Your task to perform on an android device: View the shopping cart on costco. Search for acer nitro on costco, select the first entry, add it to the cart, then select checkout. Image 0: 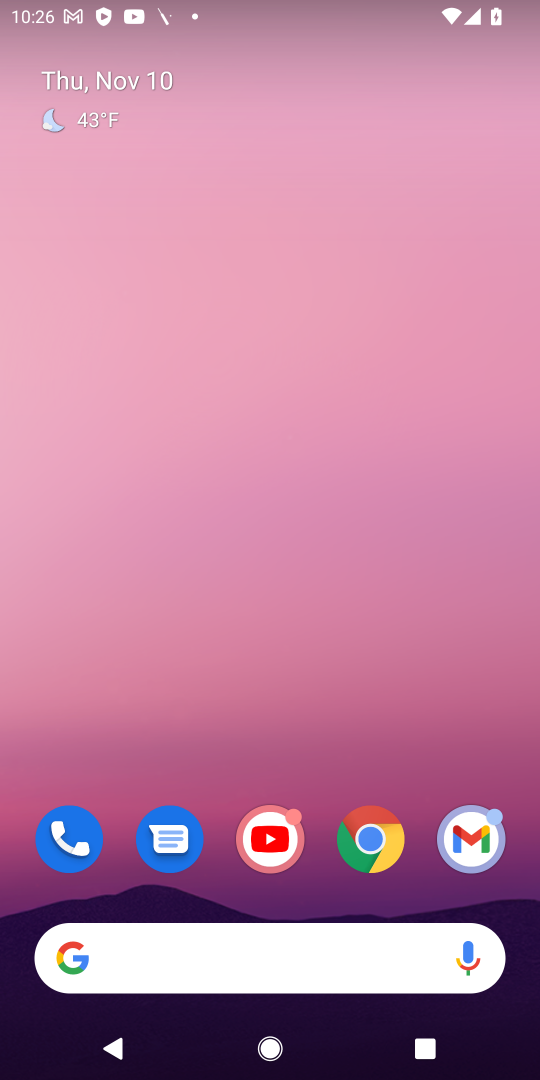
Step 0: click (374, 837)
Your task to perform on an android device: View the shopping cart on costco. Search for acer nitro on costco, select the first entry, add it to the cart, then select checkout. Image 1: 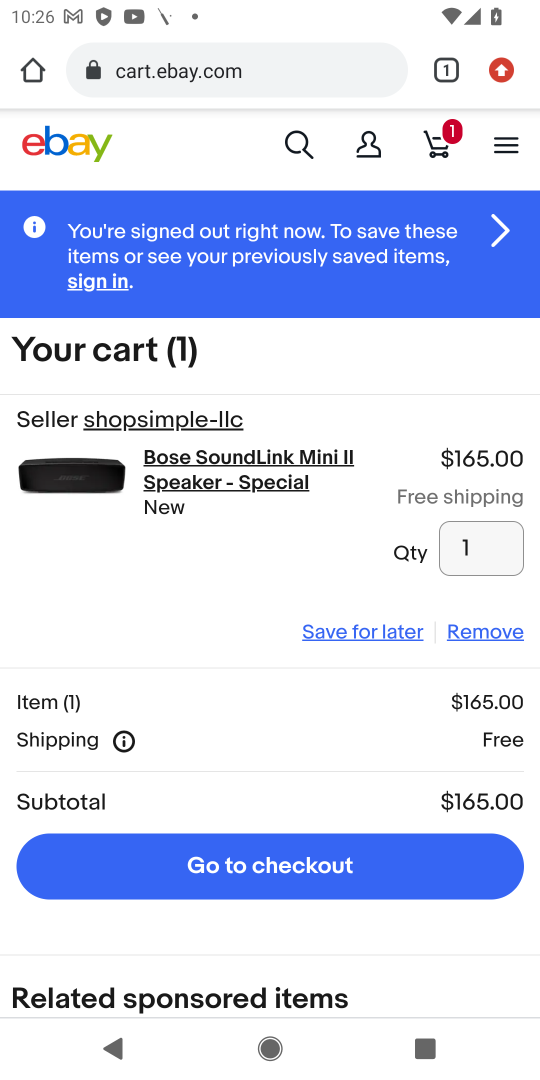
Step 1: click (293, 75)
Your task to perform on an android device: View the shopping cart on costco. Search for acer nitro on costco, select the first entry, add it to the cart, then select checkout. Image 2: 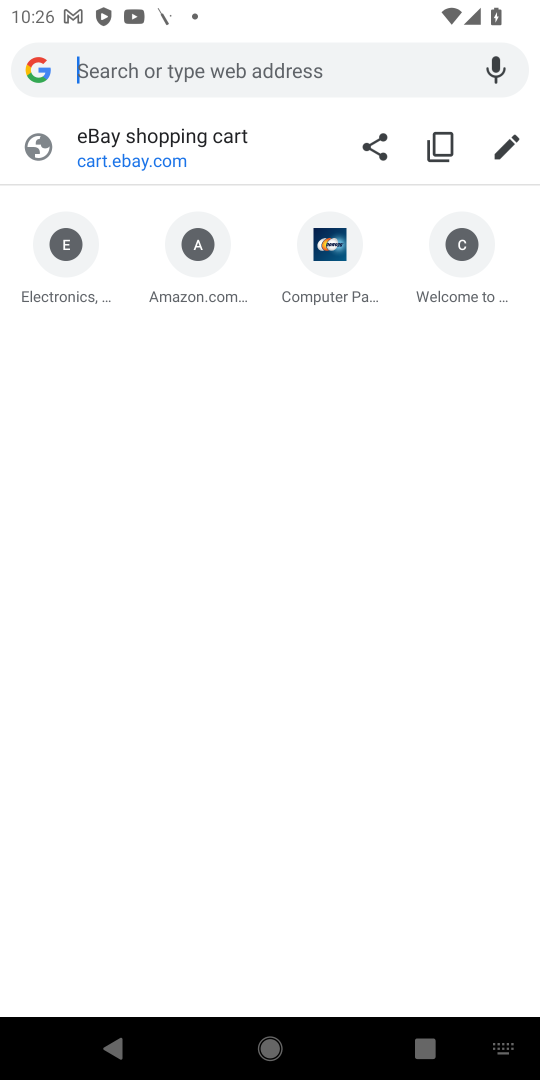
Step 2: type "costco"
Your task to perform on an android device: View the shopping cart on costco. Search for acer nitro on costco, select the first entry, add it to the cart, then select checkout. Image 3: 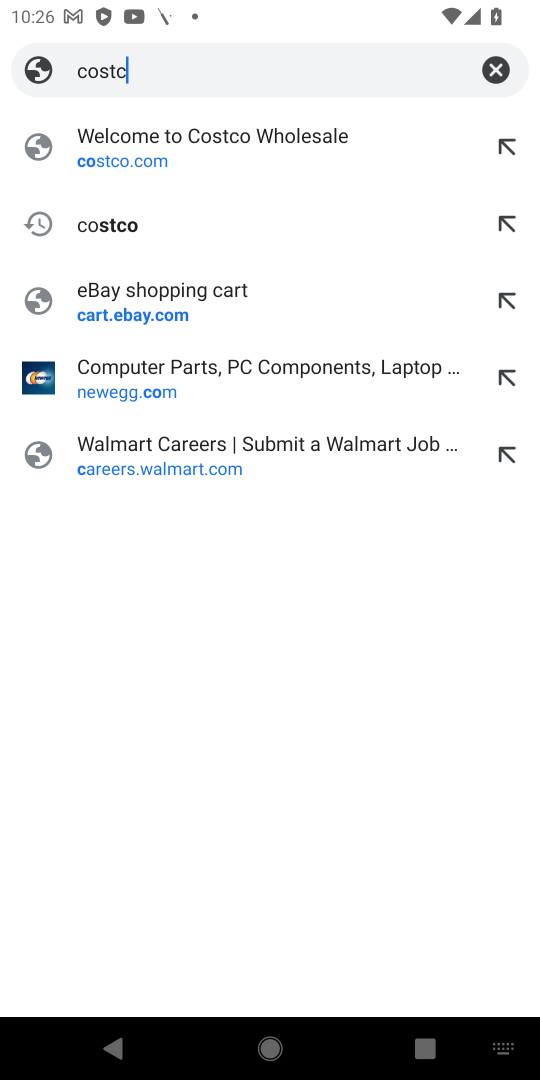
Step 3: press enter
Your task to perform on an android device: View the shopping cart on costco. Search for acer nitro on costco, select the first entry, add it to the cart, then select checkout. Image 4: 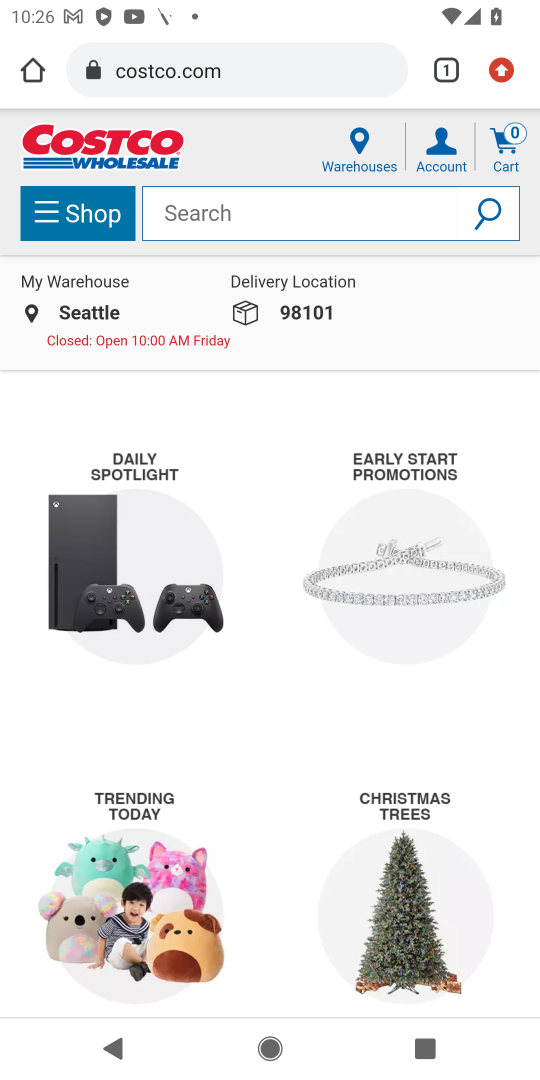
Step 4: click (333, 215)
Your task to perform on an android device: View the shopping cart on costco. Search for acer nitro on costco, select the first entry, add it to the cart, then select checkout. Image 5: 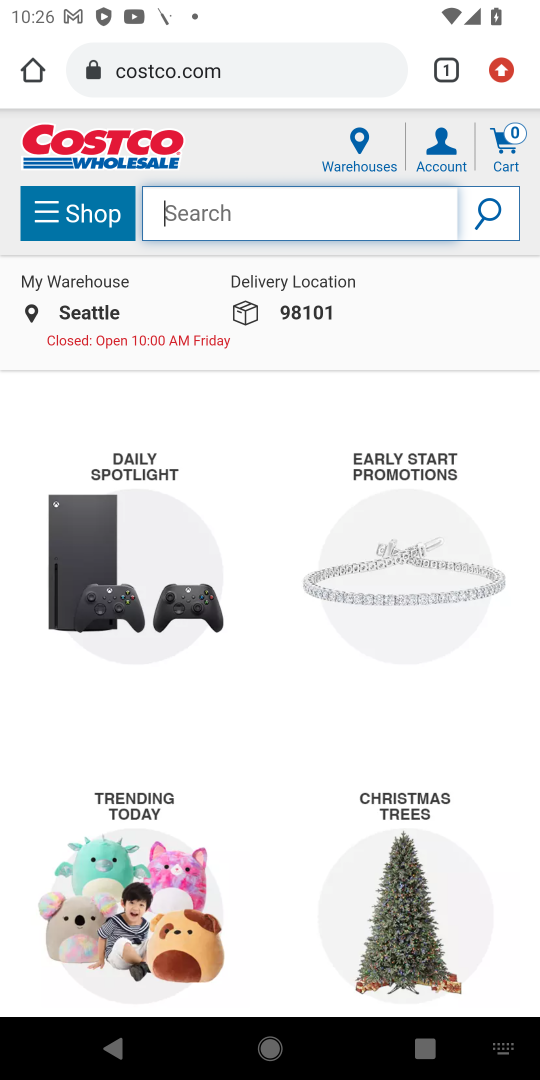
Step 5: press enter
Your task to perform on an android device: View the shopping cart on costco. Search for acer nitro on costco, select the first entry, add it to the cart, then select checkout. Image 6: 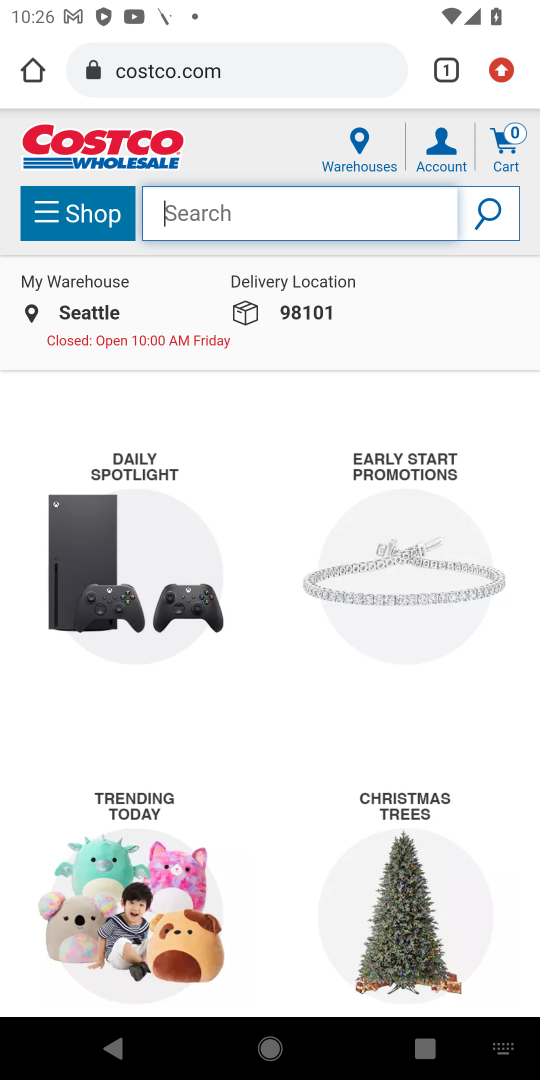
Step 6: type "acer nitro"
Your task to perform on an android device: View the shopping cart on costco. Search for acer nitro on costco, select the first entry, add it to the cart, then select checkout. Image 7: 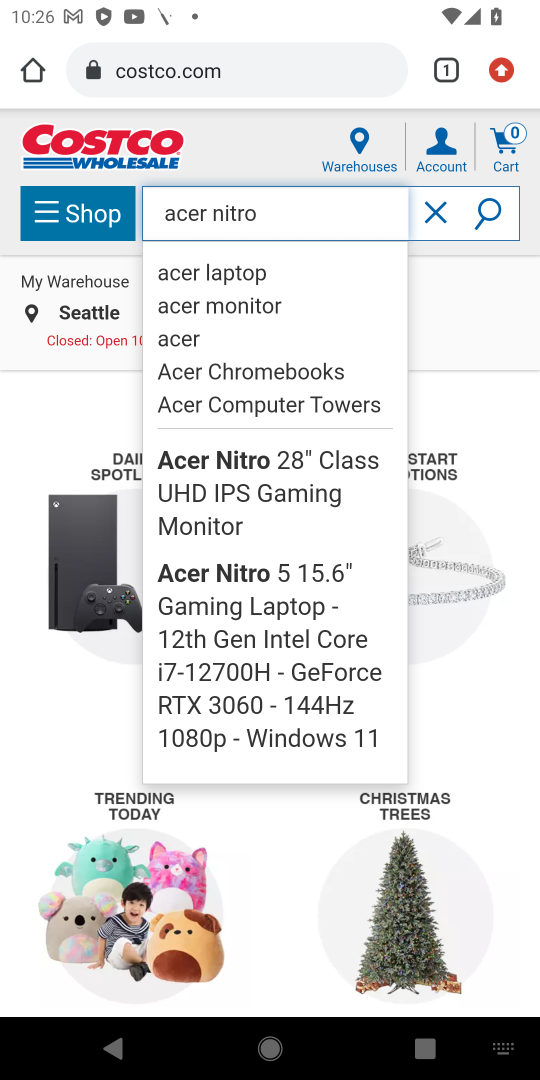
Step 7: click (504, 280)
Your task to perform on an android device: View the shopping cart on costco. Search for acer nitro on costco, select the first entry, add it to the cart, then select checkout. Image 8: 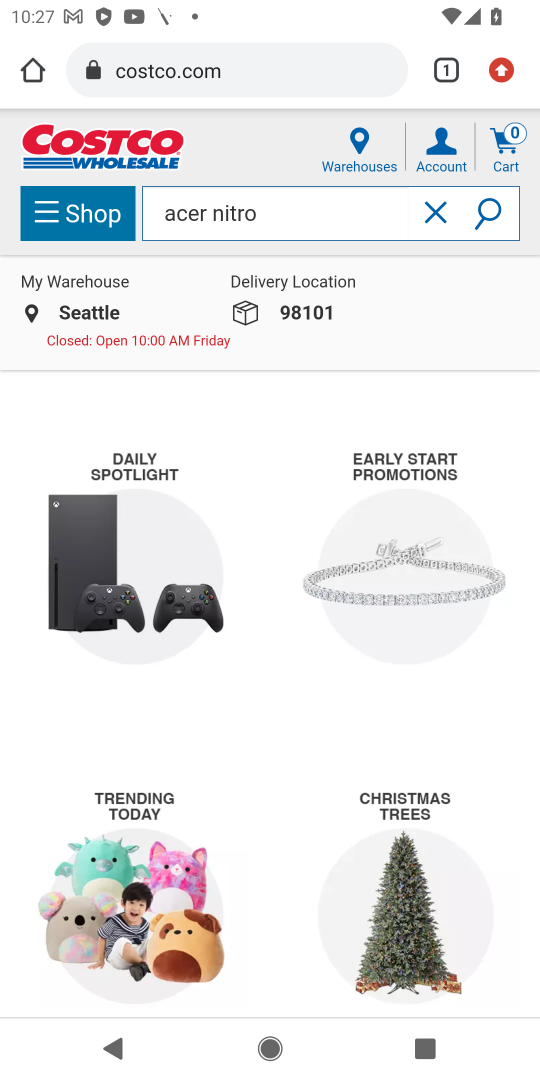
Step 8: click (360, 204)
Your task to perform on an android device: View the shopping cart on costco. Search for acer nitro on costco, select the first entry, add it to the cart, then select checkout. Image 9: 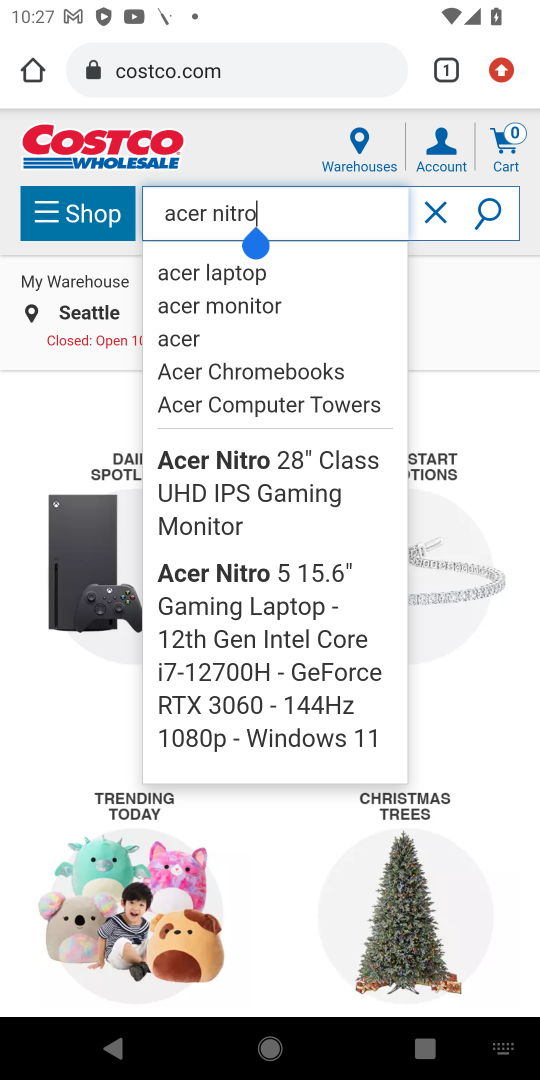
Step 9: click (488, 318)
Your task to perform on an android device: View the shopping cart on costco. Search for acer nitro on costco, select the first entry, add it to the cart, then select checkout. Image 10: 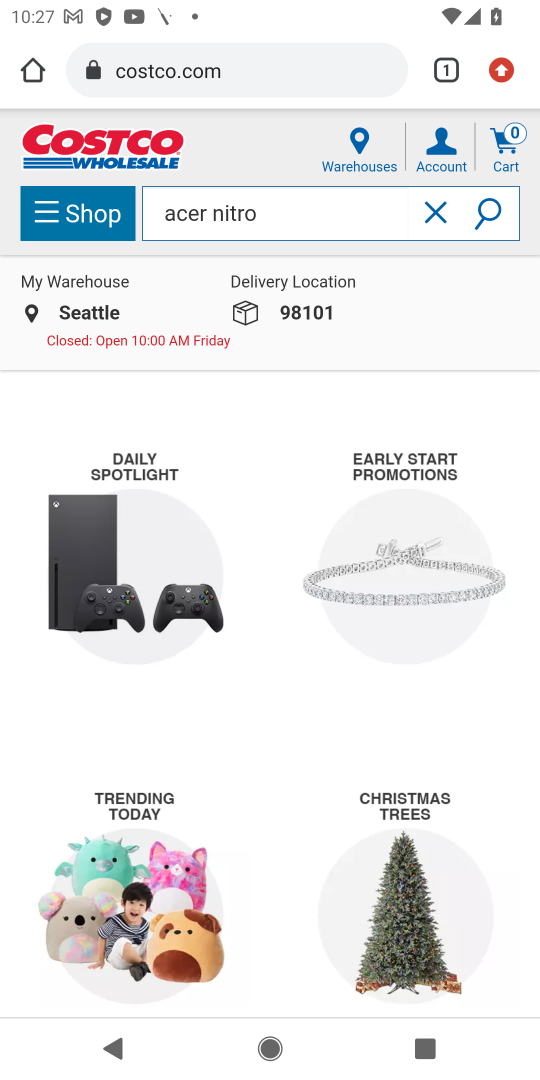
Step 10: task complete